Your task to perform on an android device: Open the Play Movies app and select the watchlist tab. Image 0: 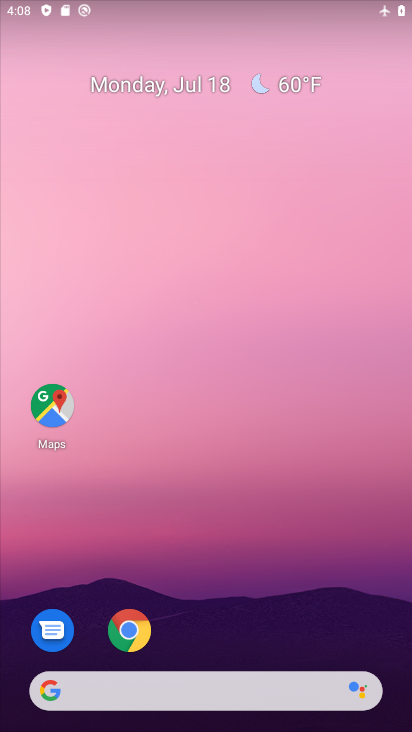
Step 0: click (154, 235)
Your task to perform on an android device: Open the Play Movies app and select the watchlist tab. Image 1: 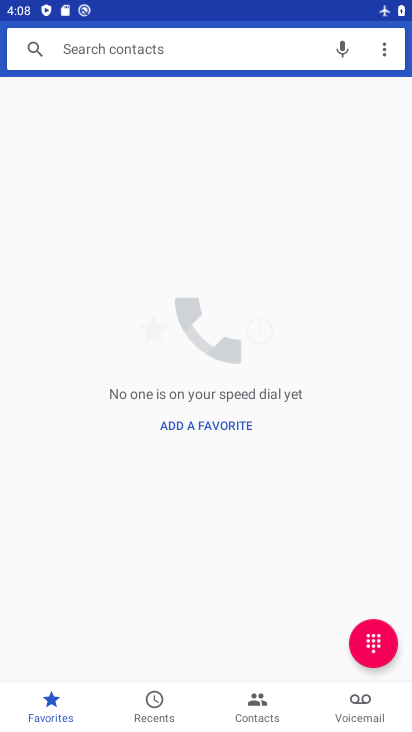
Step 1: drag from (199, 620) to (149, 212)
Your task to perform on an android device: Open the Play Movies app and select the watchlist tab. Image 2: 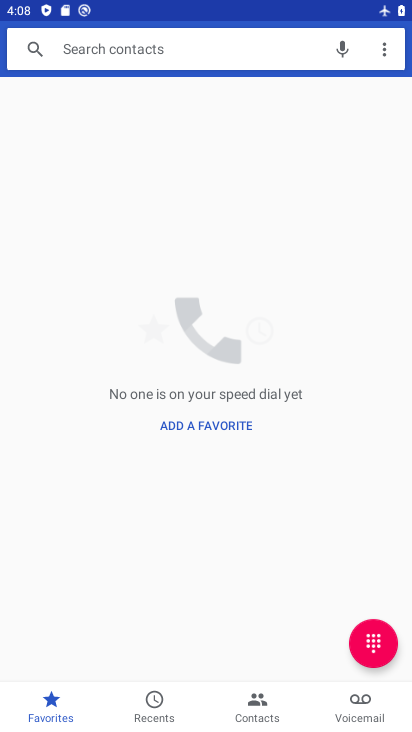
Step 2: press back button
Your task to perform on an android device: Open the Play Movies app and select the watchlist tab. Image 3: 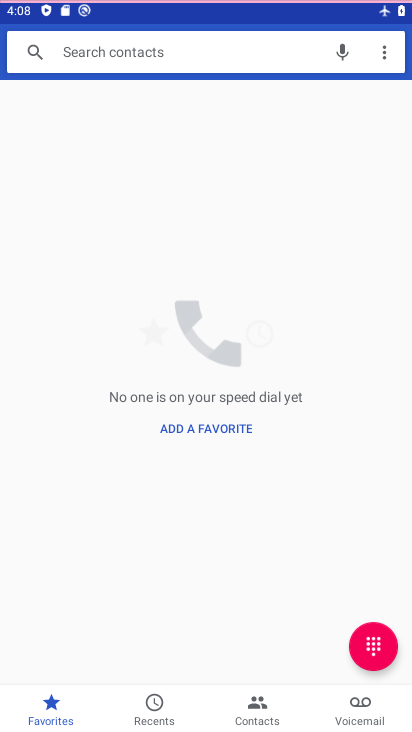
Step 3: press back button
Your task to perform on an android device: Open the Play Movies app and select the watchlist tab. Image 4: 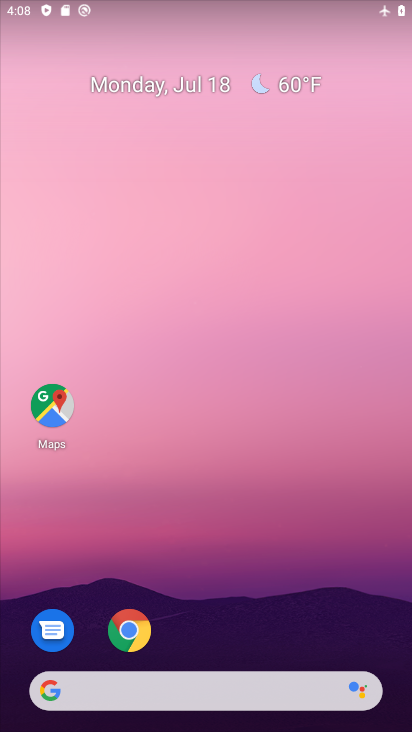
Step 4: drag from (203, 467) to (158, 64)
Your task to perform on an android device: Open the Play Movies app and select the watchlist tab. Image 5: 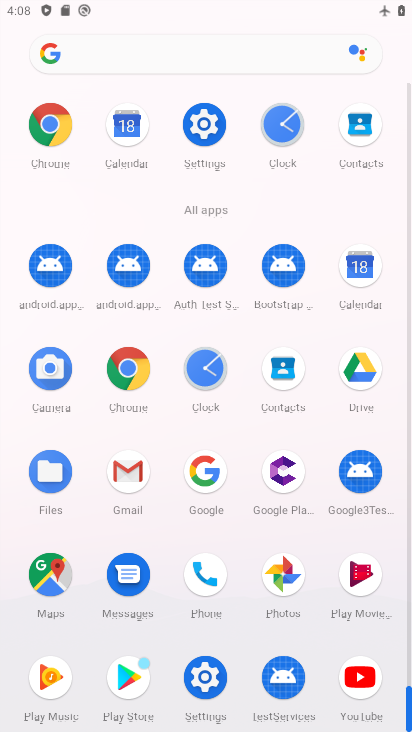
Step 5: click (361, 567)
Your task to perform on an android device: Open the Play Movies app and select the watchlist tab. Image 6: 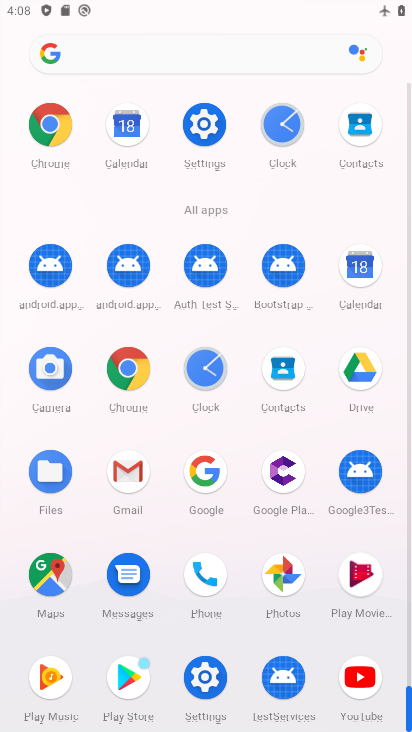
Step 6: click (357, 573)
Your task to perform on an android device: Open the Play Movies app and select the watchlist tab. Image 7: 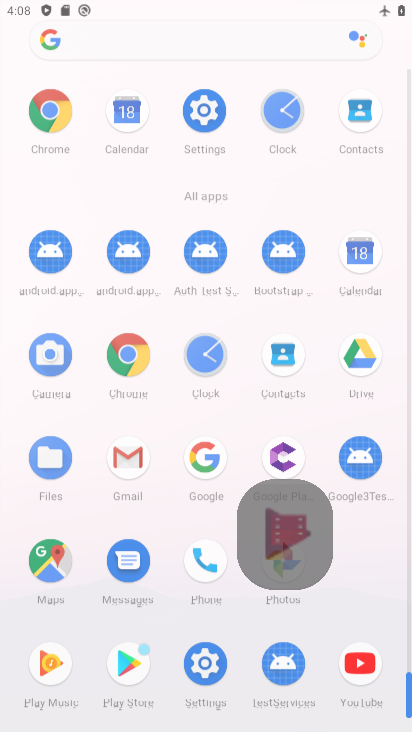
Step 7: click (354, 574)
Your task to perform on an android device: Open the Play Movies app and select the watchlist tab. Image 8: 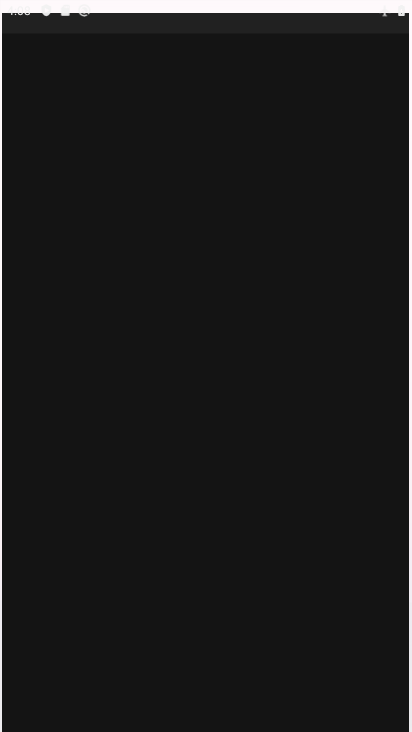
Step 8: click (343, 582)
Your task to perform on an android device: Open the Play Movies app and select the watchlist tab. Image 9: 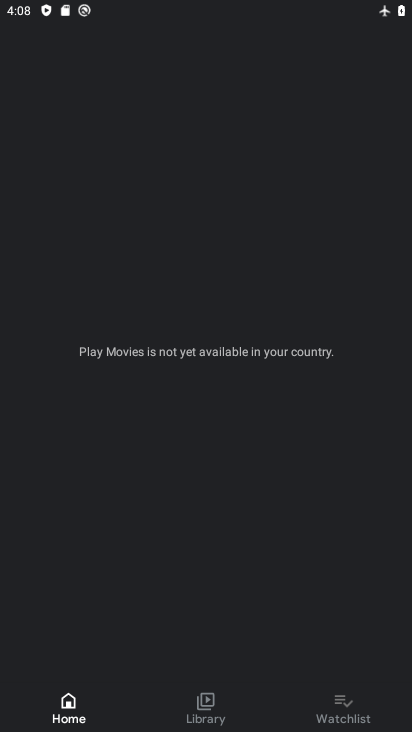
Step 9: click (347, 702)
Your task to perform on an android device: Open the Play Movies app and select the watchlist tab. Image 10: 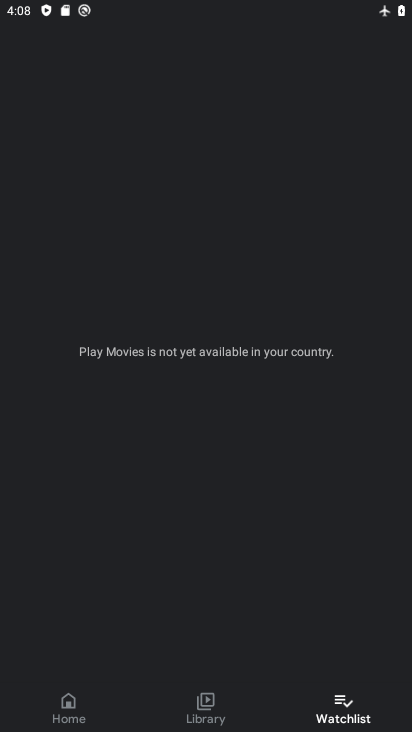
Step 10: click (342, 703)
Your task to perform on an android device: Open the Play Movies app and select the watchlist tab. Image 11: 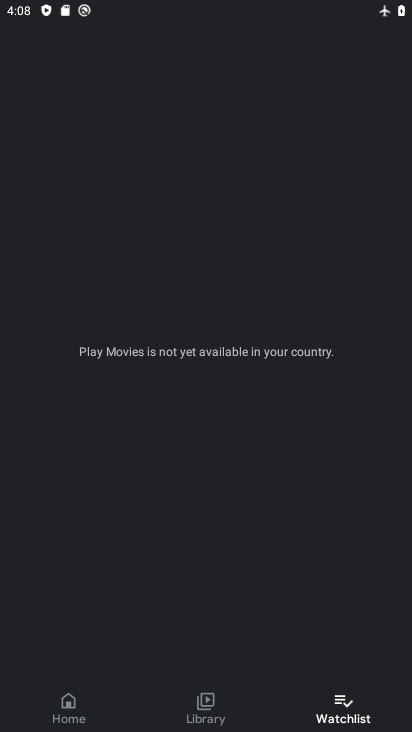
Step 11: task complete